Your task to perform on an android device: Open maps Image 0: 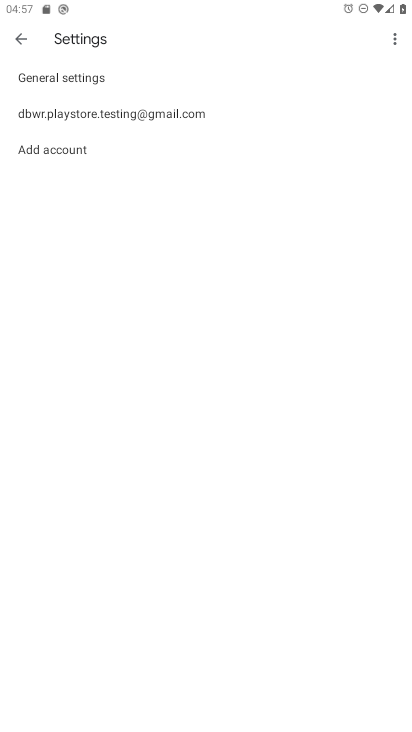
Step 0: press home button
Your task to perform on an android device: Open maps Image 1: 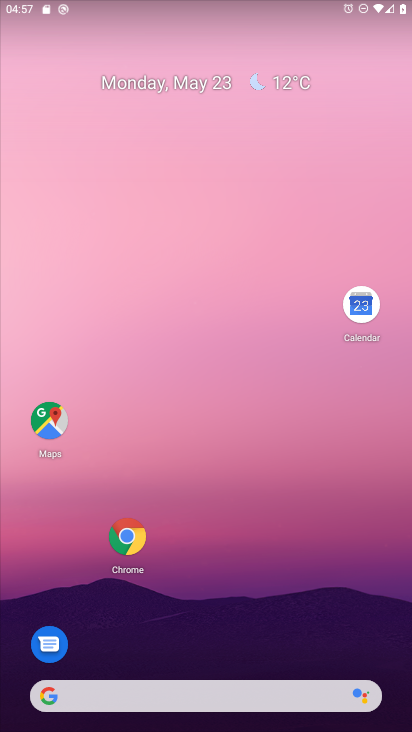
Step 1: click (49, 412)
Your task to perform on an android device: Open maps Image 2: 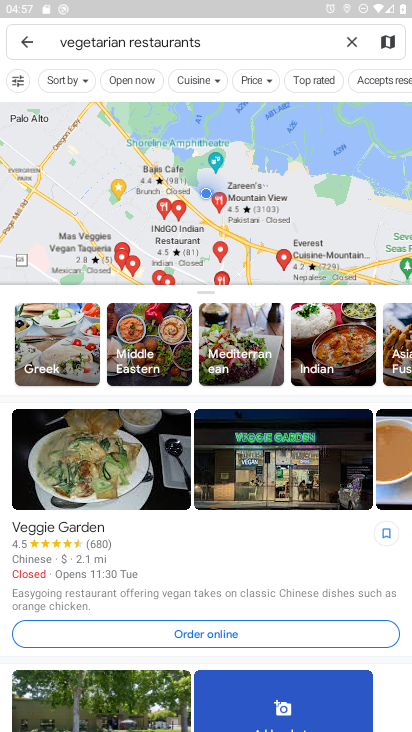
Step 2: task complete